Your task to perform on an android device: Search for pizza restaurants on Maps Image 0: 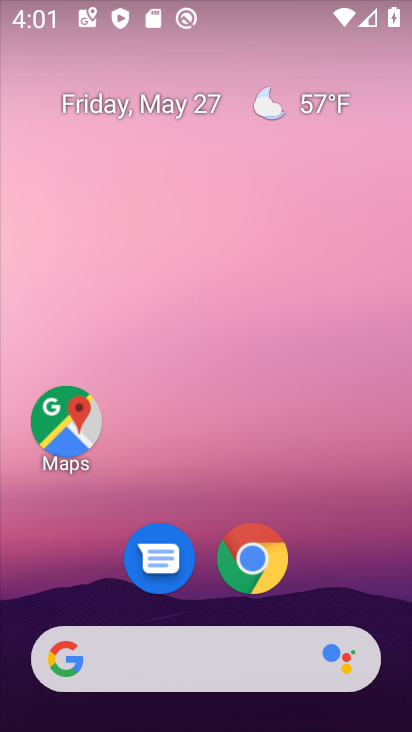
Step 0: click (340, 605)
Your task to perform on an android device: Search for pizza restaurants on Maps Image 1: 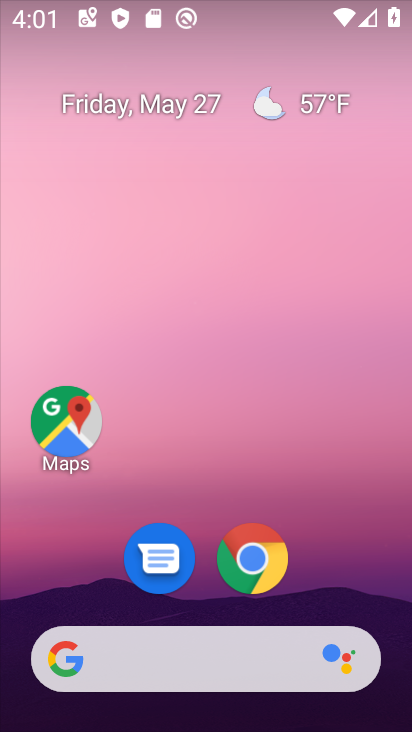
Step 1: click (76, 442)
Your task to perform on an android device: Search for pizza restaurants on Maps Image 2: 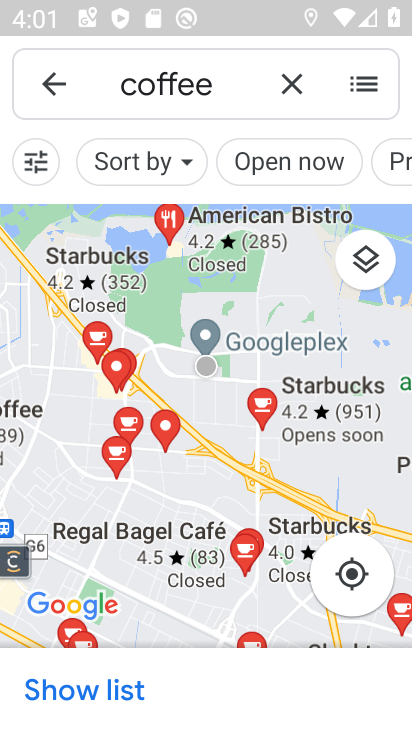
Step 2: click (288, 89)
Your task to perform on an android device: Search for pizza restaurants on Maps Image 3: 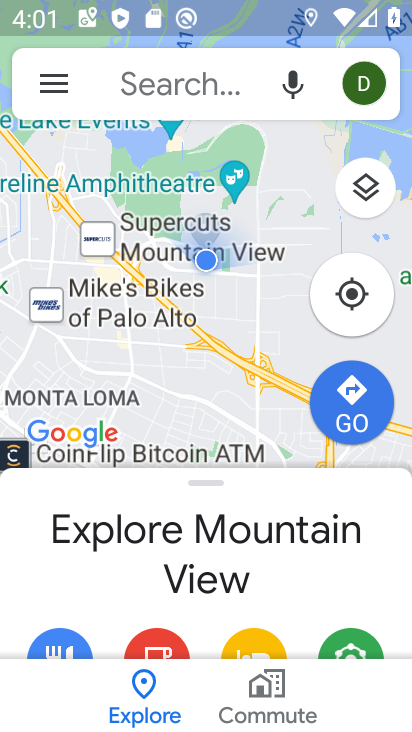
Step 3: click (219, 94)
Your task to perform on an android device: Search for pizza restaurants on Maps Image 4: 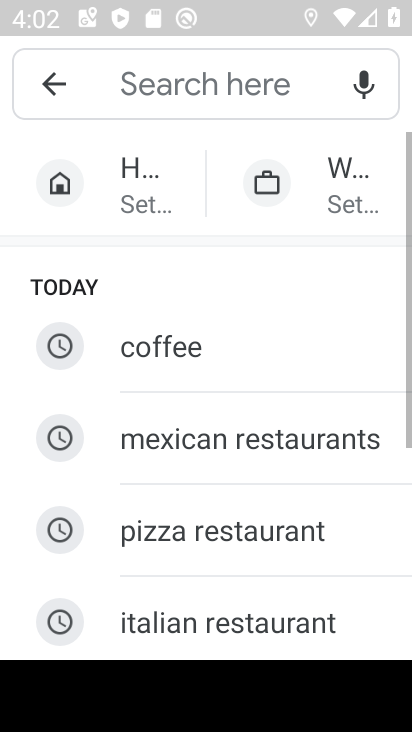
Step 4: click (232, 523)
Your task to perform on an android device: Search for pizza restaurants on Maps Image 5: 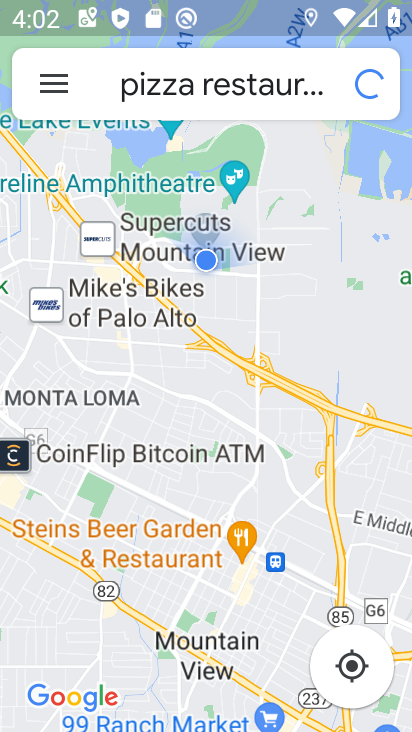
Step 5: task complete